Your task to perform on an android device: change the clock display to analog Image 0: 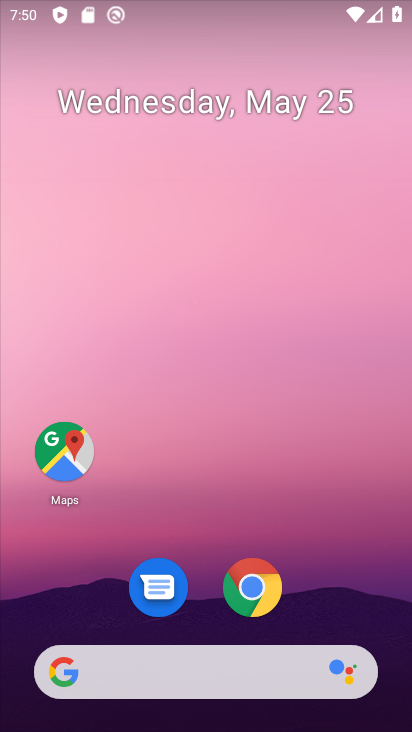
Step 0: drag from (333, 587) to (324, 147)
Your task to perform on an android device: change the clock display to analog Image 1: 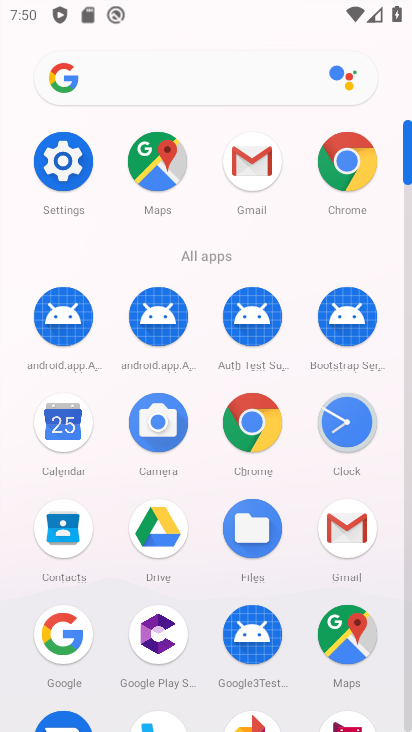
Step 1: click (354, 428)
Your task to perform on an android device: change the clock display to analog Image 2: 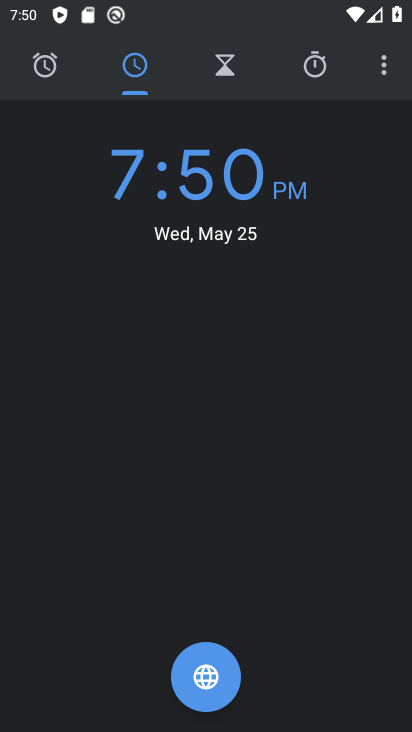
Step 2: click (382, 67)
Your task to perform on an android device: change the clock display to analog Image 3: 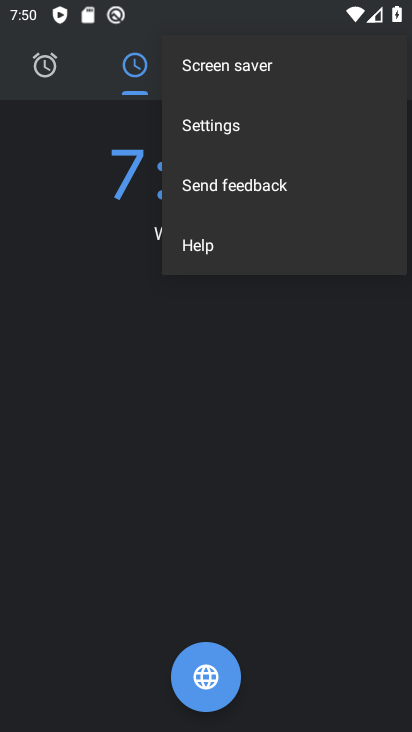
Step 3: click (225, 125)
Your task to perform on an android device: change the clock display to analog Image 4: 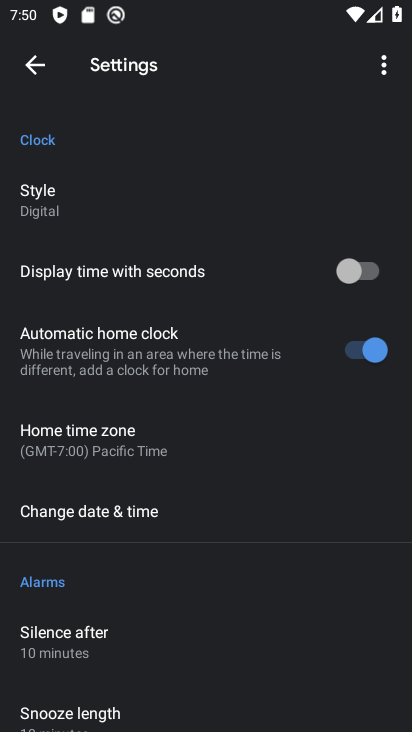
Step 4: click (42, 209)
Your task to perform on an android device: change the clock display to analog Image 5: 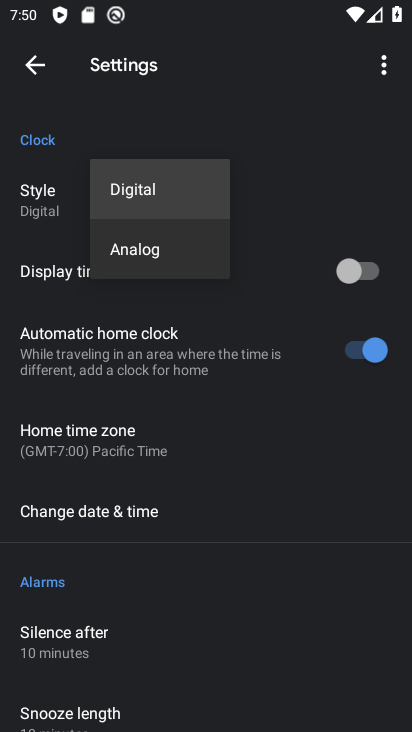
Step 5: click (142, 237)
Your task to perform on an android device: change the clock display to analog Image 6: 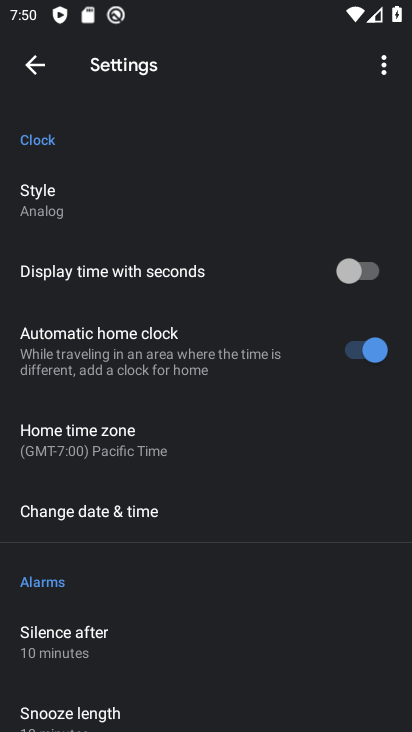
Step 6: task complete